Your task to perform on an android device: turn on notifications settings in the gmail app Image 0: 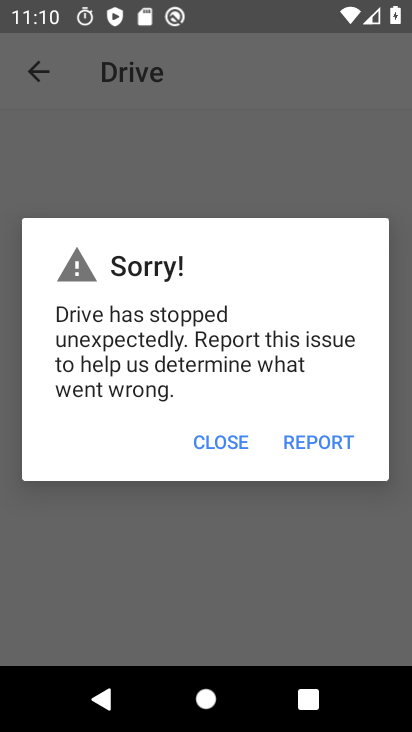
Step 0: press home button
Your task to perform on an android device: turn on notifications settings in the gmail app Image 1: 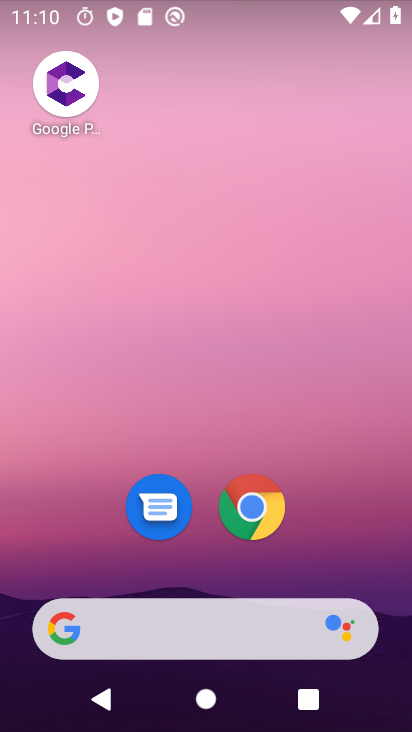
Step 1: click (393, 644)
Your task to perform on an android device: turn on notifications settings in the gmail app Image 2: 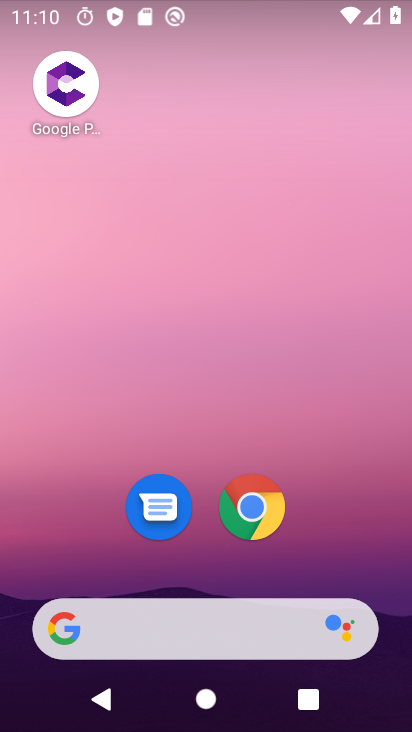
Step 2: drag from (377, 221) to (275, 16)
Your task to perform on an android device: turn on notifications settings in the gmail app Image 3: 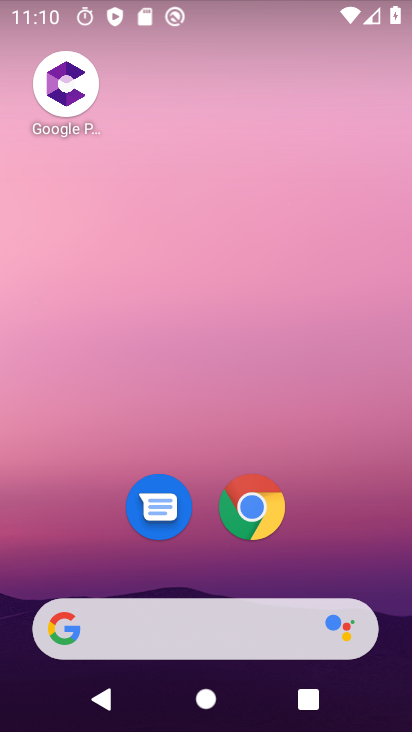
Step 3: drag from (399, 628) to (308, 36)
Your task to perform on an android device: turn on notifications settings in the gmail app Image 4: 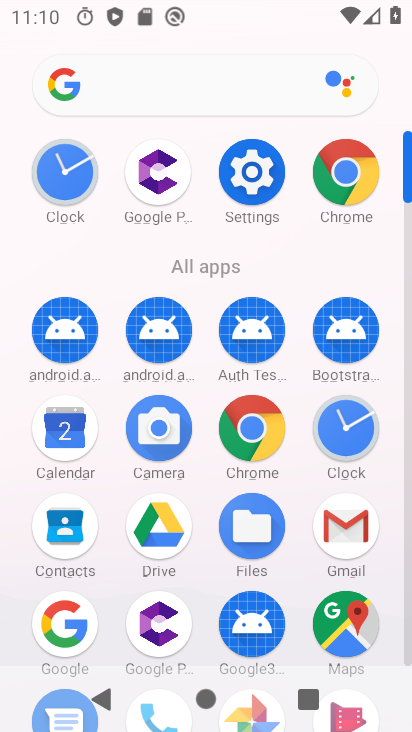
Step 4: click (366, 522)
Your task to perform on an android device: turn on notifications settings in the gmail app Image 5: 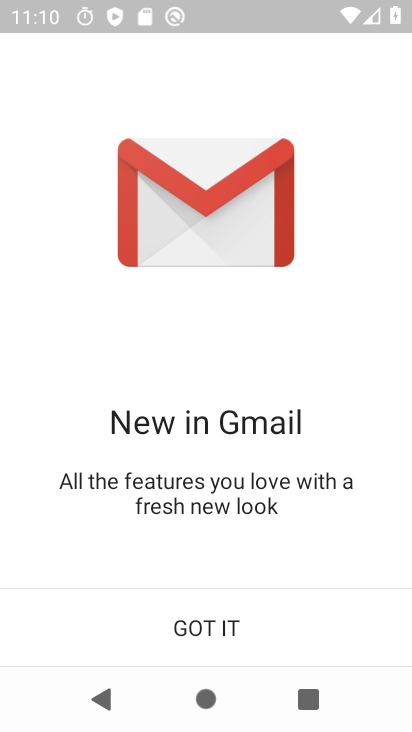
Step 5: click (266, 624)
Your task to perform on an android device: turn on notifications settings in the gmail app Image 6: 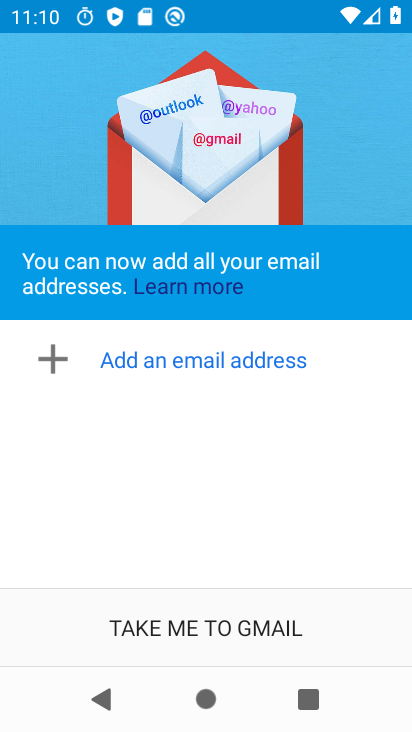
Step 6: click (266, 624)
Your task to perform on an android device: turn on notifications settings in the gmail app Image 7: 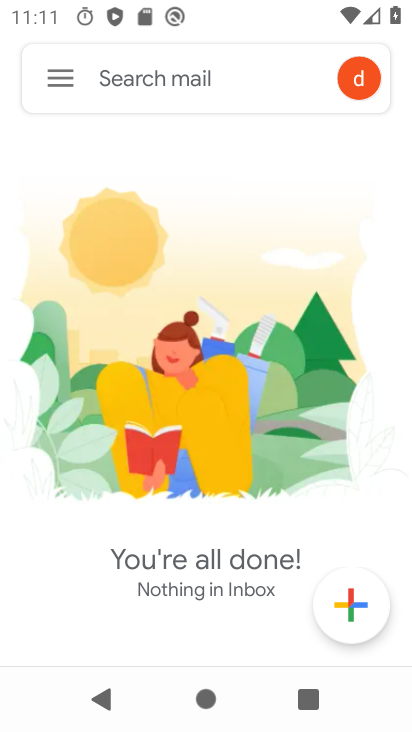
Step 7: click (66, 69)
Your task to perform on an android device: turn on notifications settings in the gmail app Image 8: 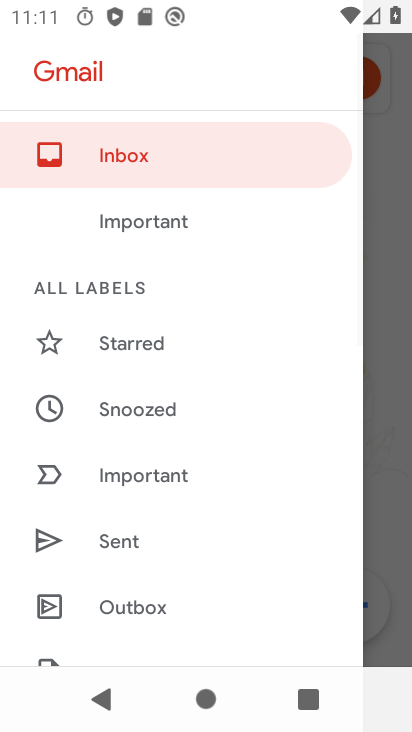
Step 8: click (253, 454)
Your task to perform on an android device: turn on notifications settings in the gmail app Image 9: 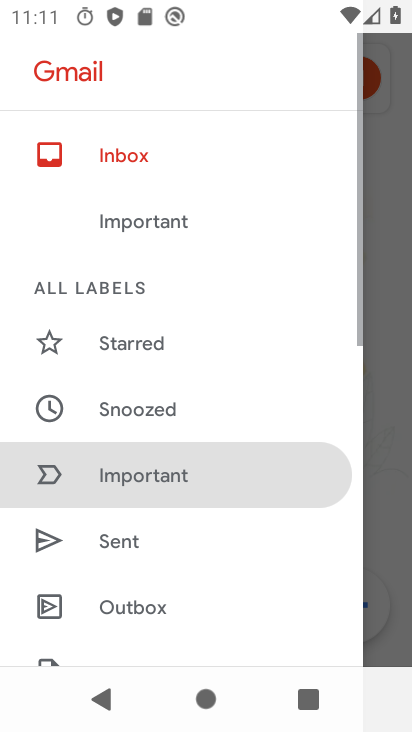
Step 9: drag from (236, 112) to (207, 27)
Your task to perform on an android device: turn on notifications settings in the gmail app Image 10: 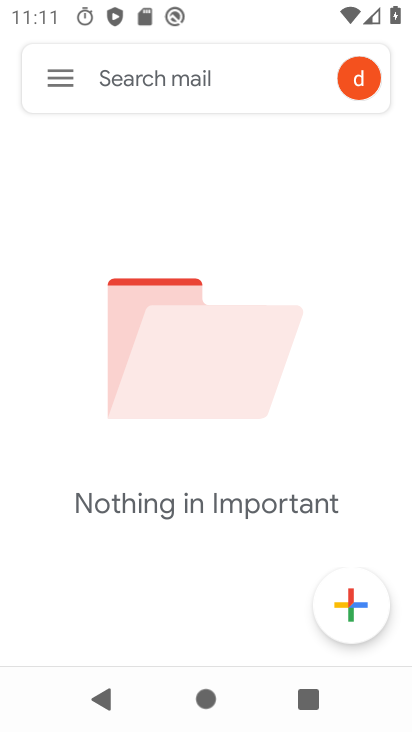
Step 10: click (47, 89)
Your task to perform on an android device: turn on notifications settings in the gmail app Image 11: 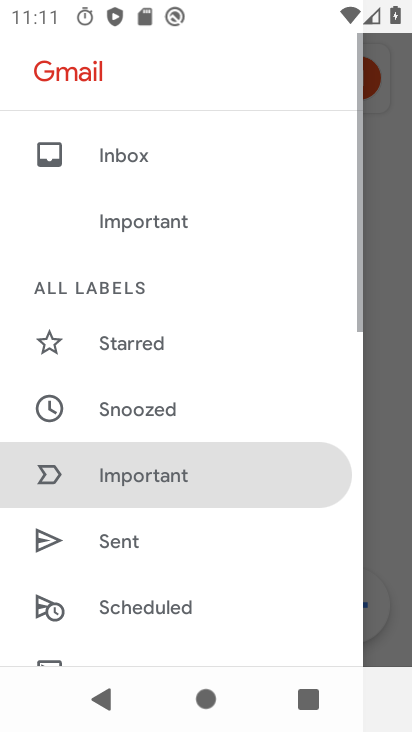
Step 11: drag from (205, 583) to (203, 39)
Your task to perform on an android device: turn on notifications settings in the gmail app Image 12: 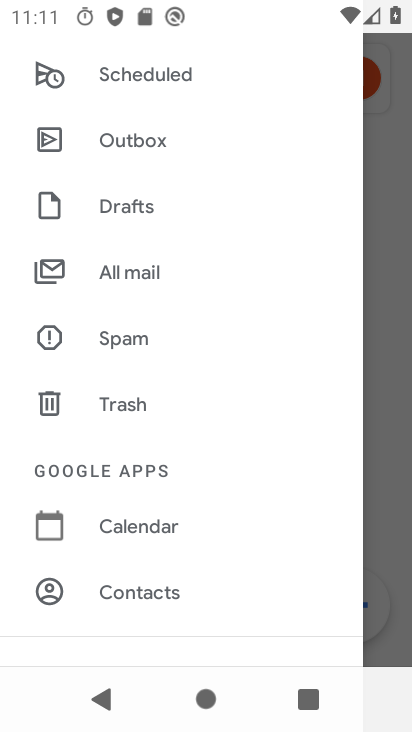
Step 12: drag from (166, 636) to (189, 76)
Your task to perform on an android device: turn on notifications settings in the gmail app Image 13: 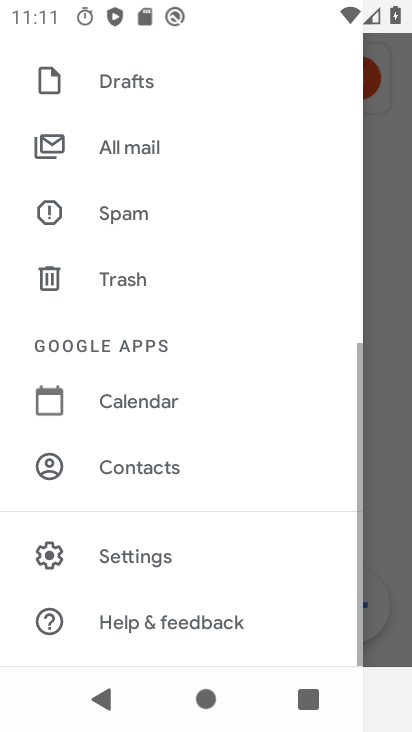
Step 13: click (198, 564)
Your task to perform on an android device: turn on notifications settings in the gmail app Image 14: 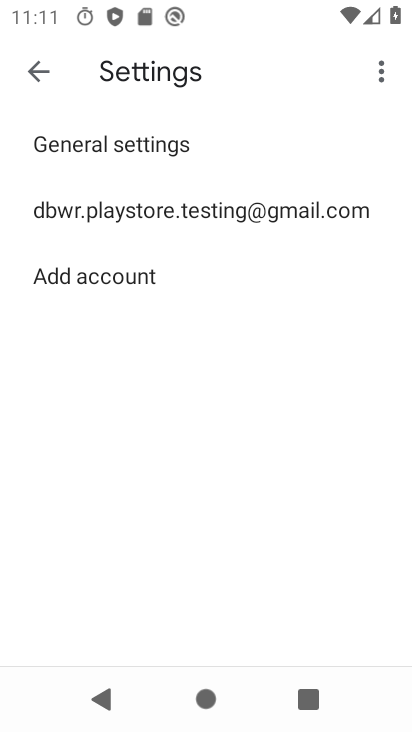
Step 14: click (163, 207)
Your task to perform on an android device: turn on notifications settings in the gmail app Image 15: 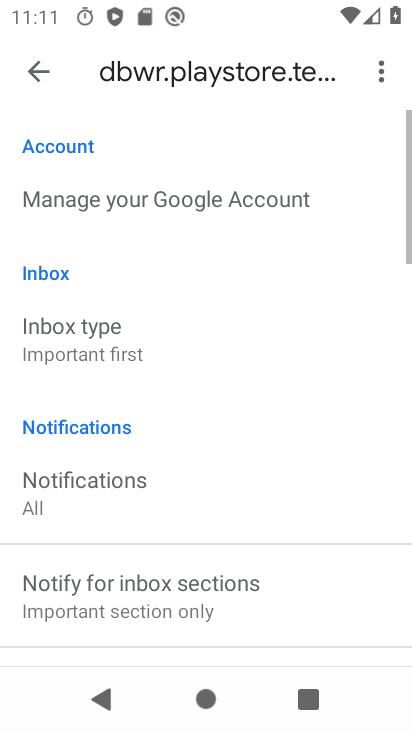
Step 15: click (169, 508)
Your task to perform on an android device: turn on notifications settings in the gmail app Image 16: 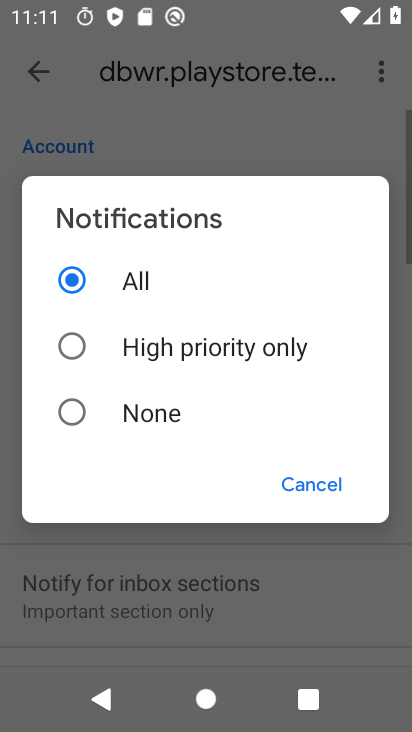
Step 16: click (83, 292)
Your task to perform on an android device: turn on notifications settings in the gmail app Image 17: 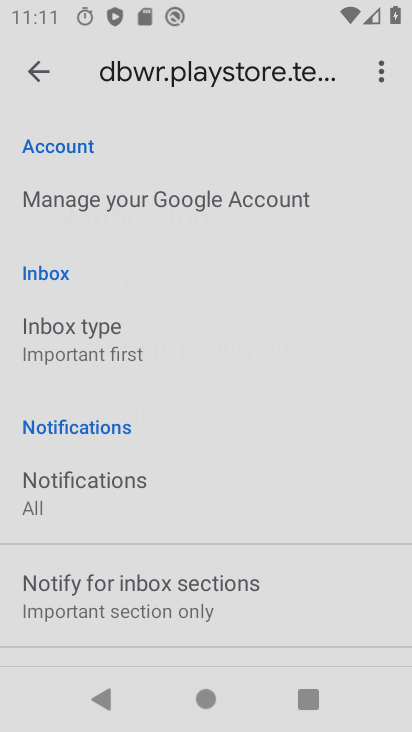
Step 17: task complete